Your task to perform on an android device: Open the phone app and click the voicemail tab. Image 0: 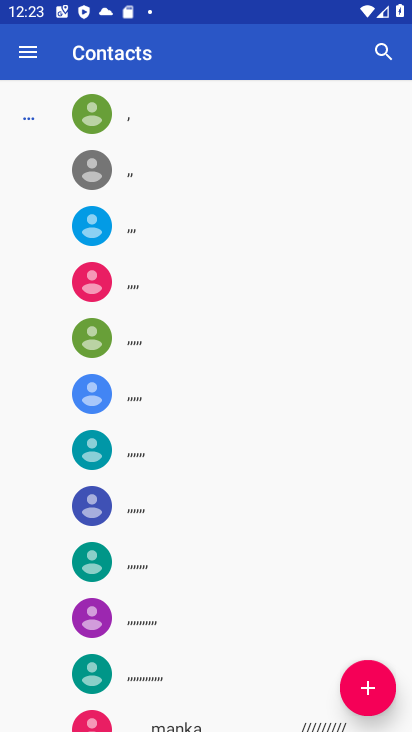
Step 0: task complete